Your task to perform on an android device: uninstall "Walmart Shopping & Grocery" Image 0: 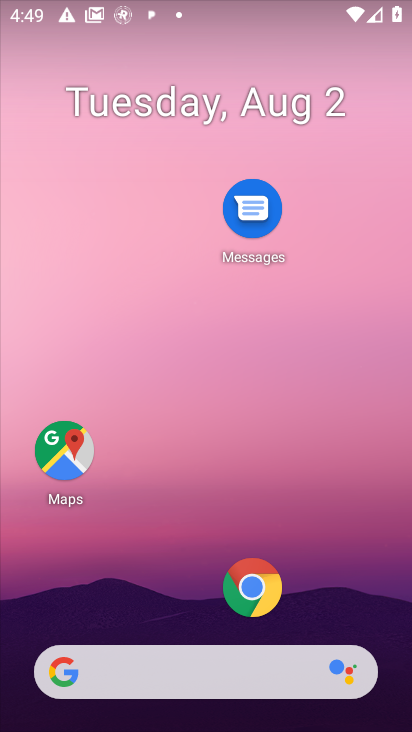
Step 0: drag from (203, 621) to (230, 173)
Your task to perform on an android device: uninstall "Walmart Shopping & Grocery" Image 1: 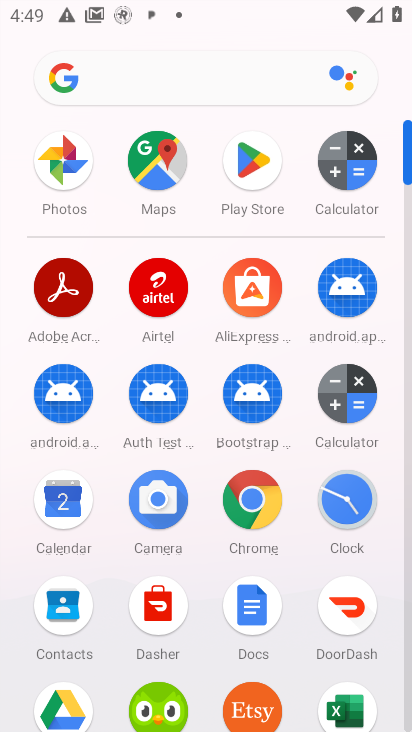
Step 1: click (272, 172)
Your task to perform on an android device: uninstall "Walmart Shopping & Grocery" Image 2: 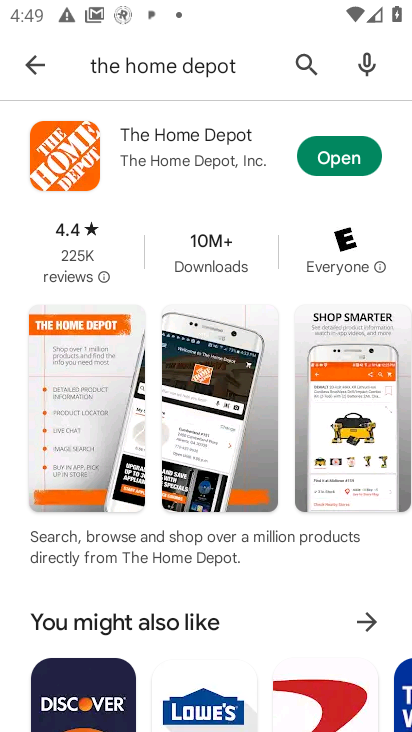
Step 2: click (302, 63)
Your task to perform on an android device: uninstall "Walmart Shopping & Grocery" Image 3: 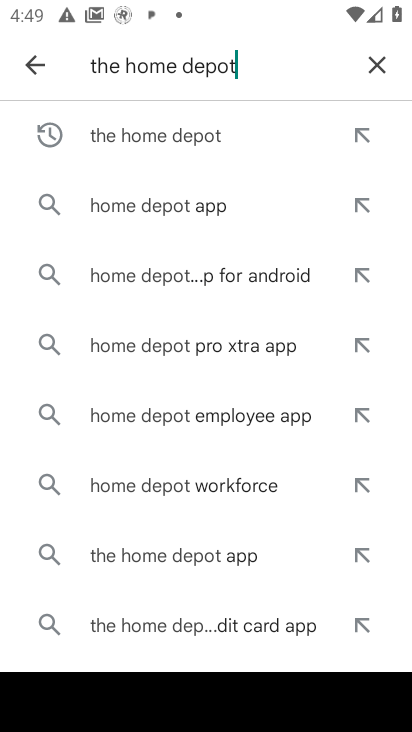
Step 3: click (371, 55)
Your task to perform on an android device: uninstall "Walmart Shopping & Grocery" Image 4: 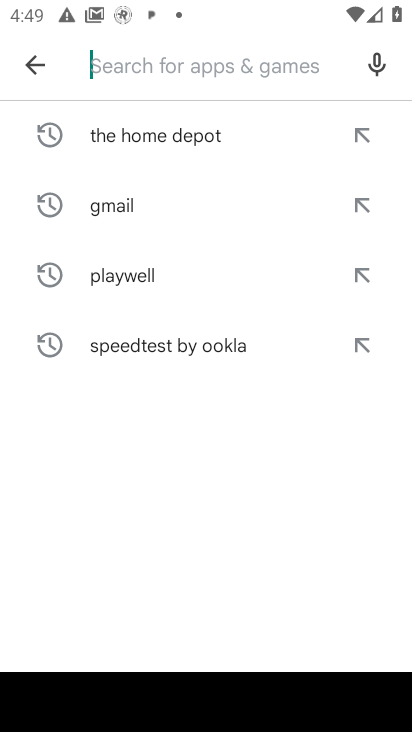
Step 4: type "Walmart Shopping & Grocery"
Your task to perform on an android device: uninstall "Walmart Shopping & Grocery" Image 5: 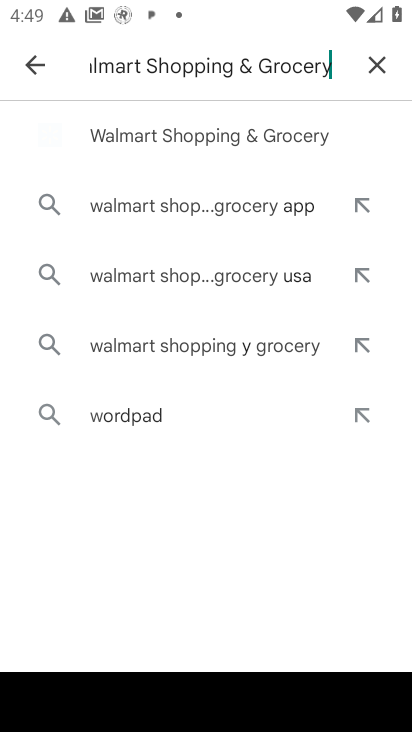
Step 5: type ""
Your task to perform on an android device: uninstall "Walmart Shopping & Grocery" Image 6: 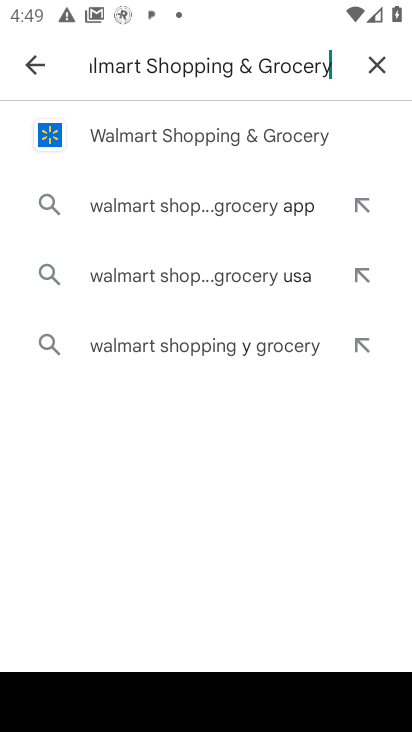
Step 6: click (188, 130)
Your task to perform on an android device: uninstall "Walmart Shopping & Grocery" Image 7: 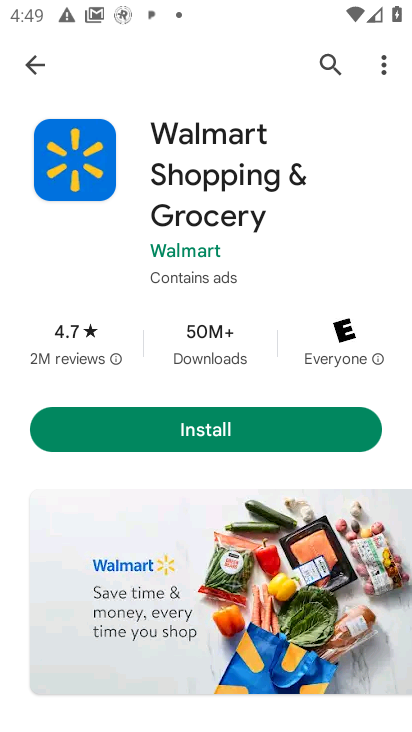
Step 7: task complete